Your task to perform on an android device: Go to battery settings Image 0: 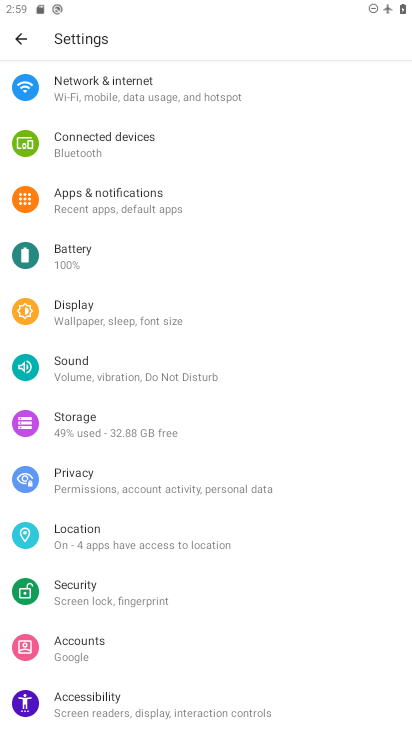
Step 0: click (53, 236)
Your task to perform on an android device: Go to battery settings Image 1: 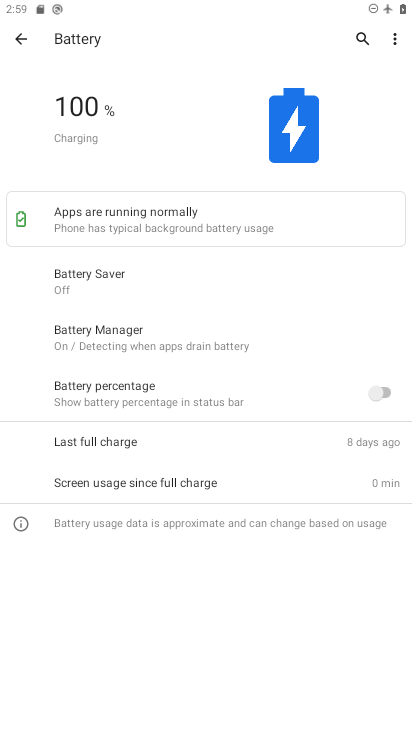
Step 1: task complete